Your task to perform on an android device: toggle airplane mode Image 0: 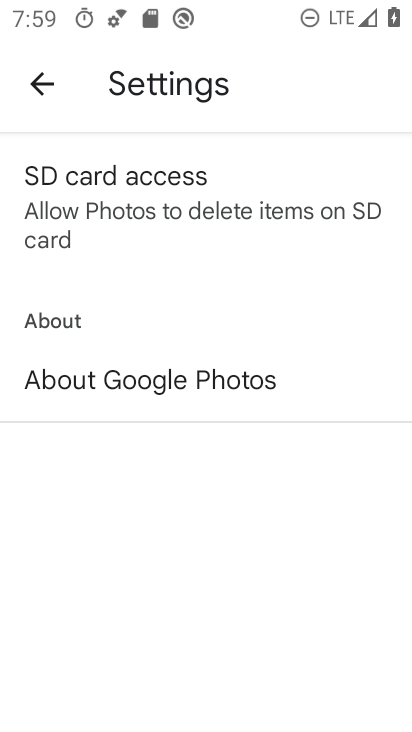
Step 0: press home button
Your task to perform on an android device: toggle airplane mode Image 1: 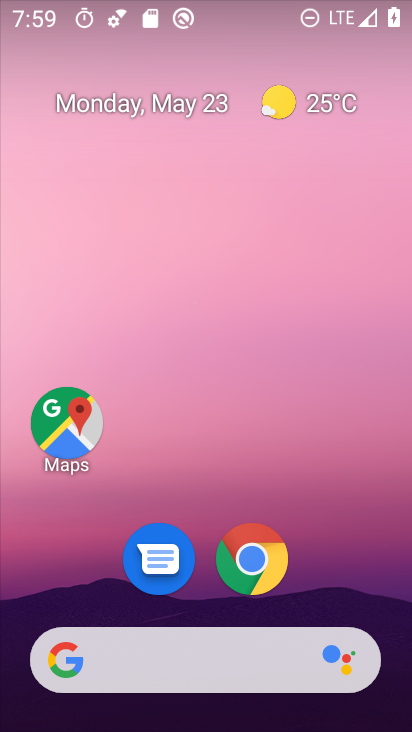
Step 1: drag from (271, 1) to (300, 474)
Your task to perform on an android device: toggle airplane mode Image 2: 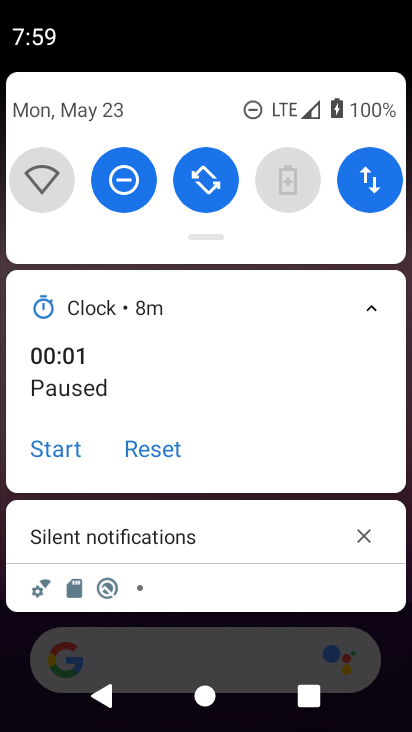
Step 2: drag from (241, 226) to (250, 512)
Your task to perform on an android device: toggle airplane mode Image 3: 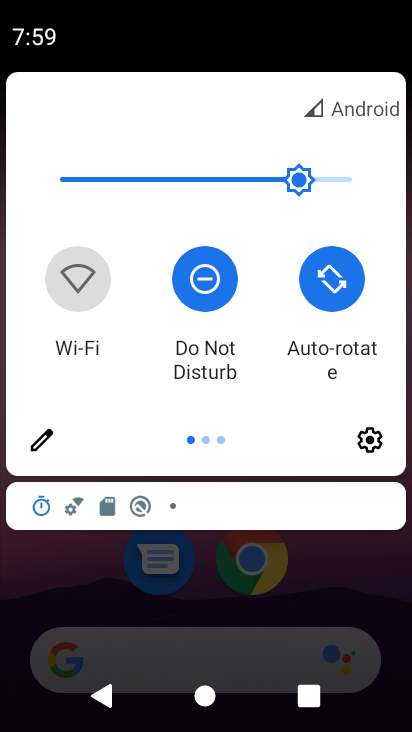
Step 3: drag from (321, 350) to (52, 320)
Your task to perform on an android device: toggle airplane mode Image 4: 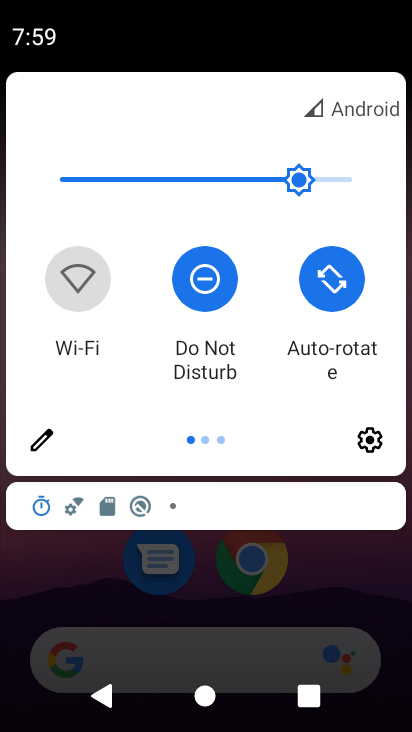
Step 4: drag from (348, 345) to (42, 310)
Your task to perform on an android device: toggle airplane mode Image 5: 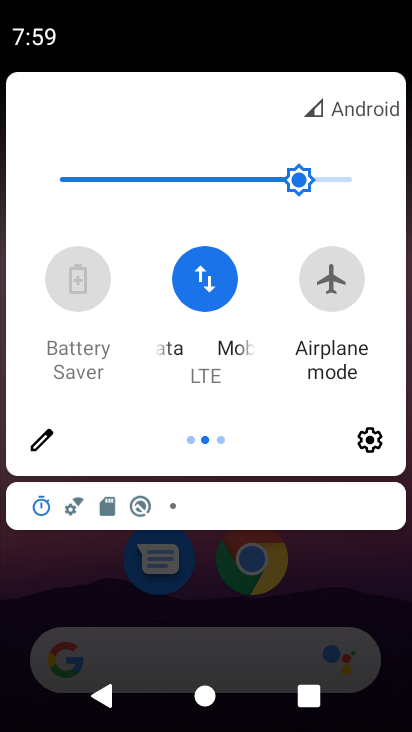
Step 5: click (319, 298)
Your task to perform on an android device: toggle airplane mode Image 6: 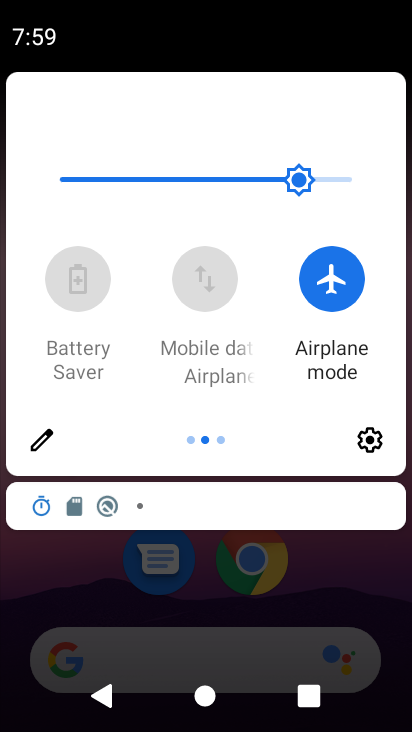
Step 6: task complete